Your task to perform on an android device: Search for Italian restaurants on Maps Image 0: 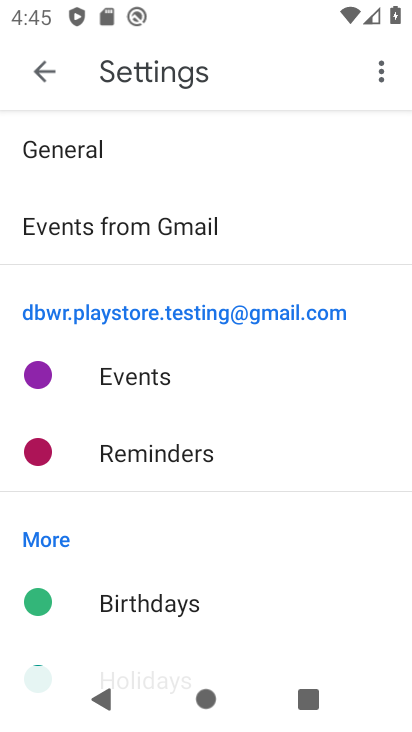
Step 0: press home button
Your task to perform on an android device: Search for Italian restaurants on Maps Image 1: 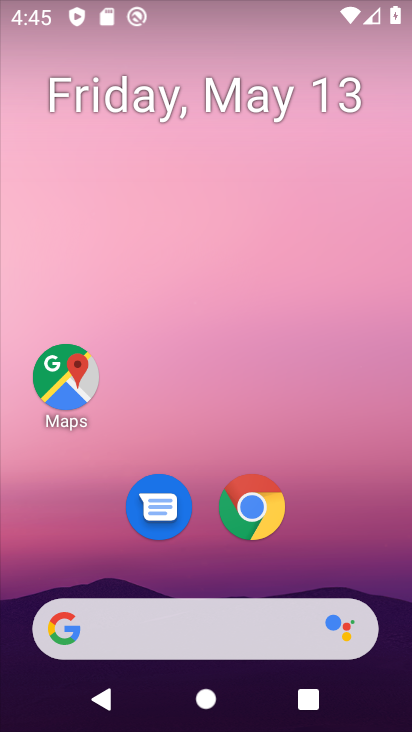
Step 1: click (66, 379)
Your task to perform on an android device: Search for Italian restaurants on Maps Image 2: 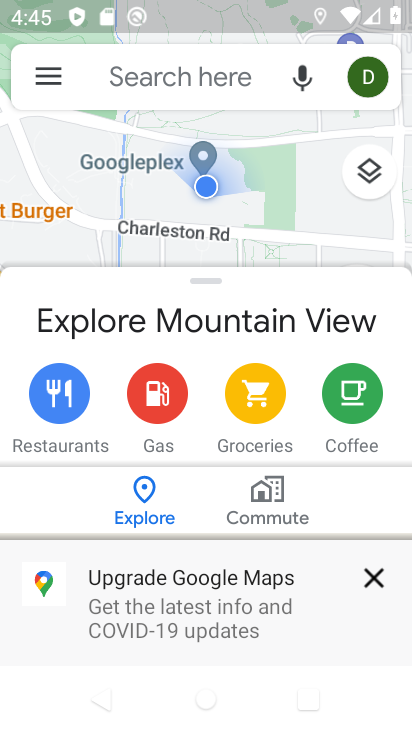
Step 2: click (181, 67)
Your task to perform on an android device: Search for Italian restaurants on Maps Image 3: 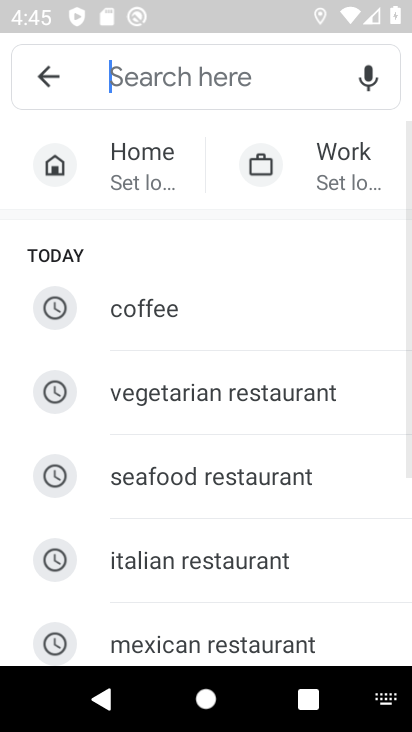
Step 3: click (201, 566)
Your task to perform on an android device: Search for Italian restaurants on Maps Image 4: 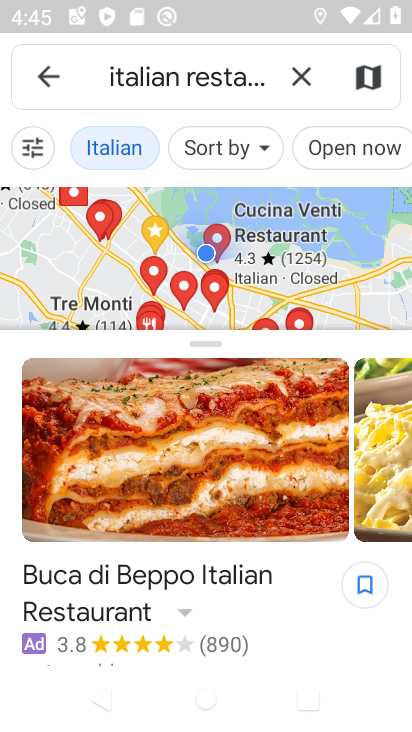
Step 4: task complete